Your task to perform on an android device: check out phone information Image 0: 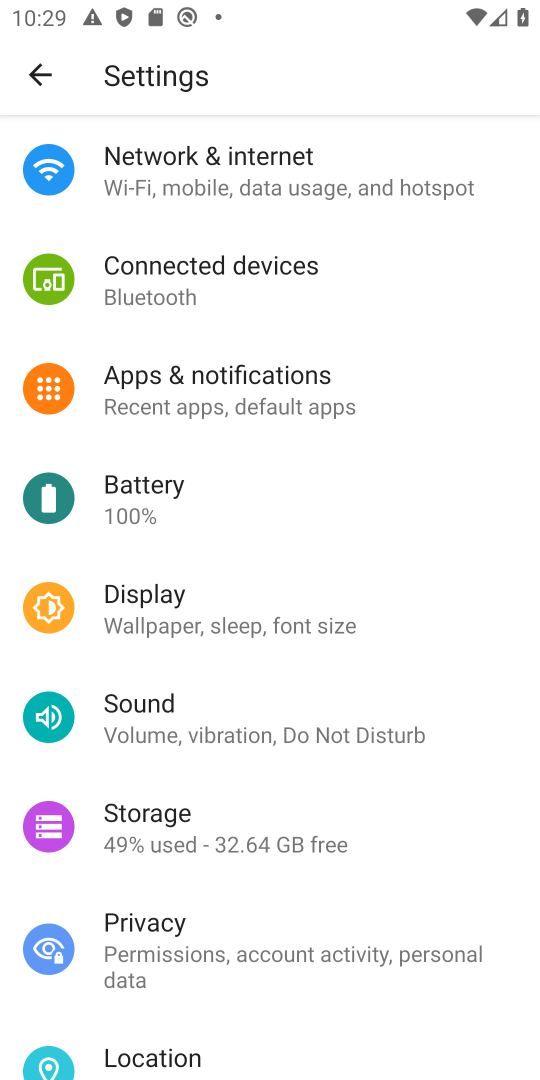
Step 0: drag from (278, 909) to (366, 411)
Your task to perform on an android device: check out phone information Image 1: 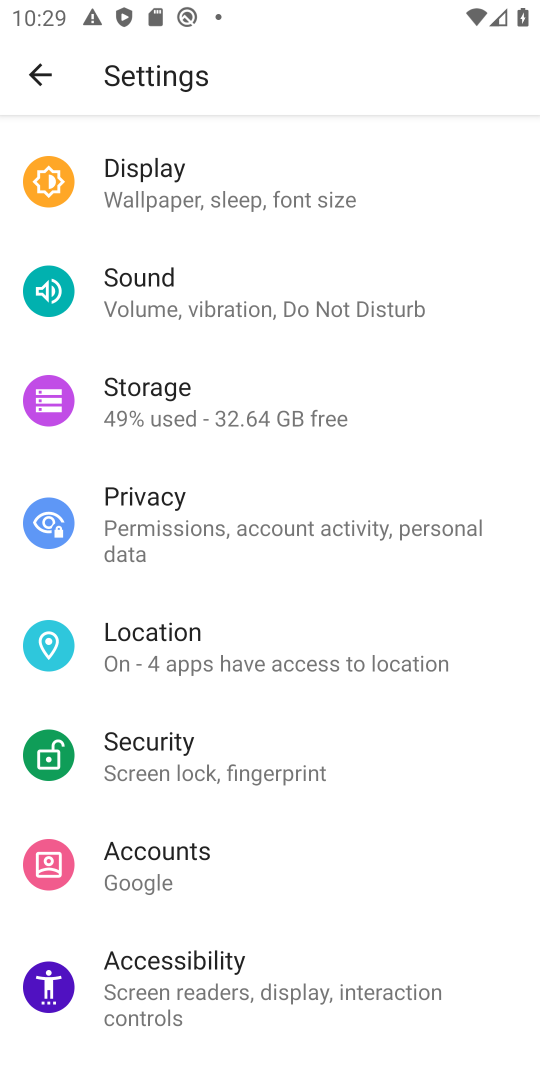
Step 1: drag from (355, 243) to (374, 842)
Your task to perform on an android device: check out phone information Image 2: 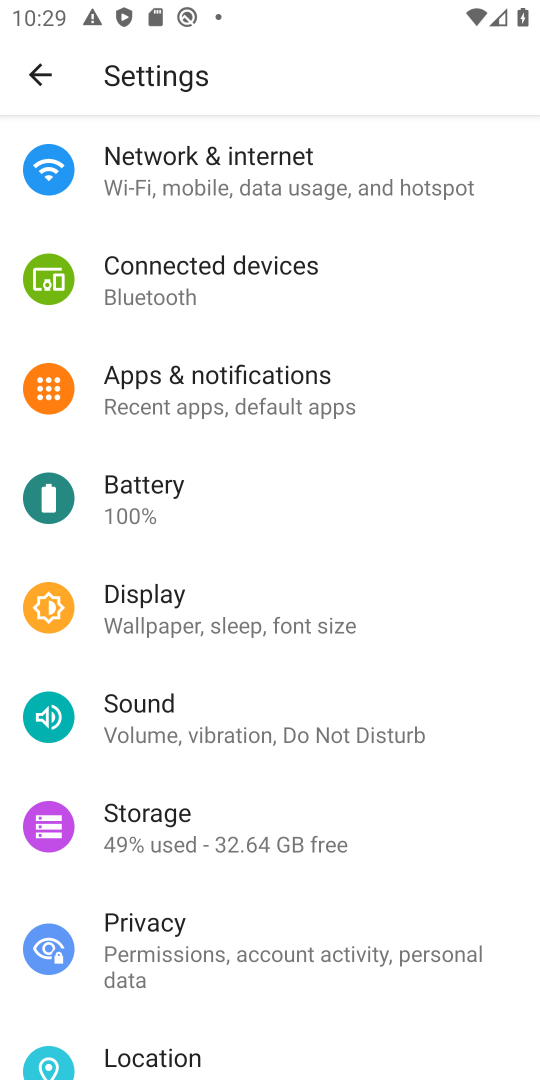
Step 2: press home button
Your task to perform on an android device: check out phone information Image 3: 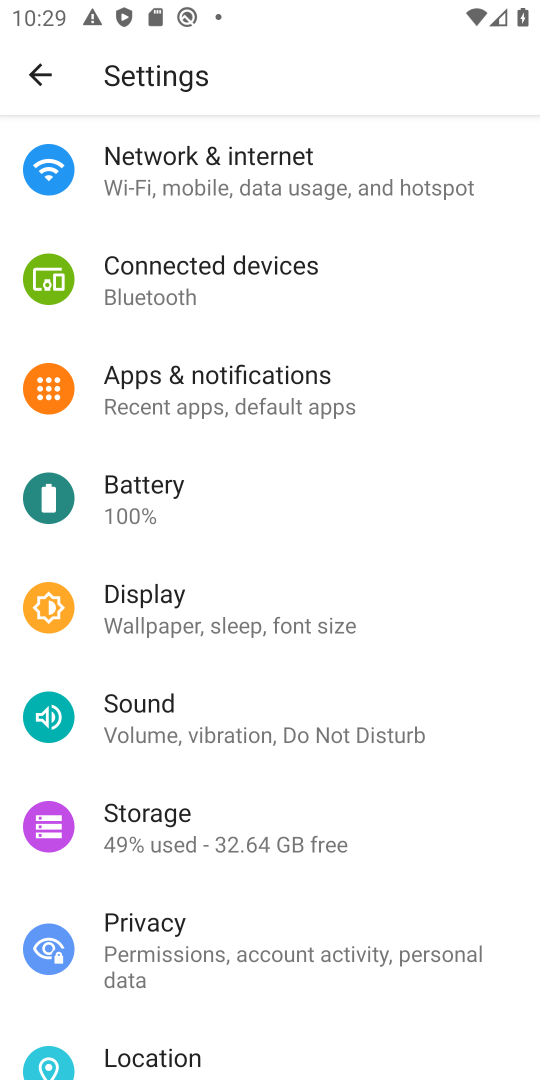
Step 3: press home button
Your task to perform on an android device: check out phone information Image 4: 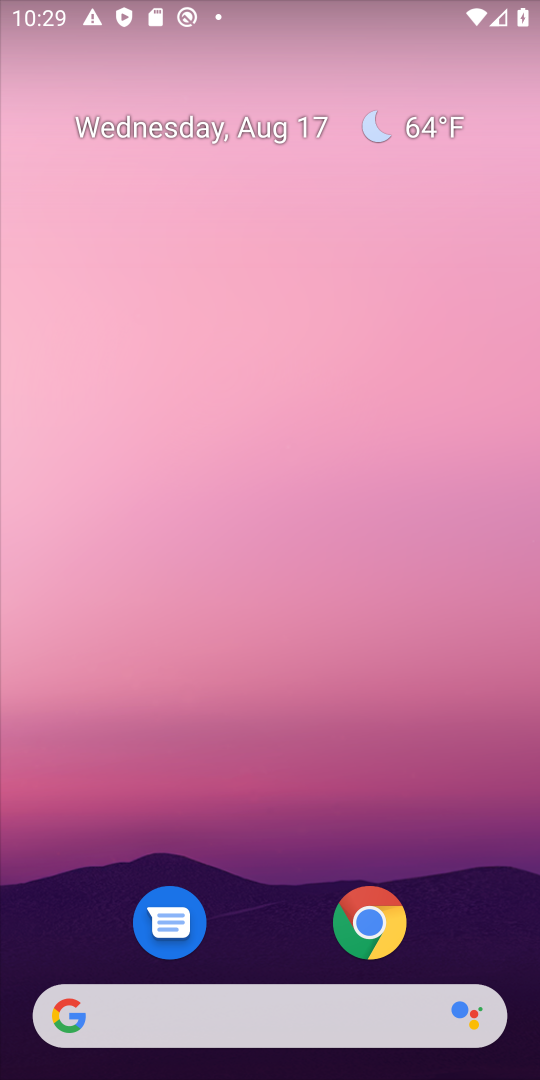
Step 4: drag from (269, 875) to (305, 103)
Your task to perform on an android device: check out phone information Image 5: 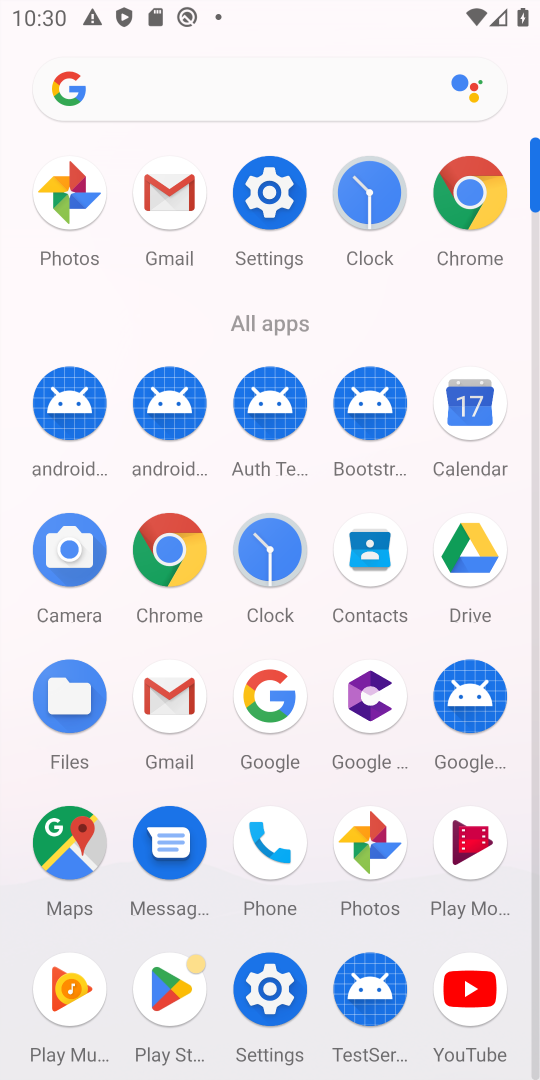
Step 5: click (279, 845)
Your task to perform on an android device: check out phone information Image 6: 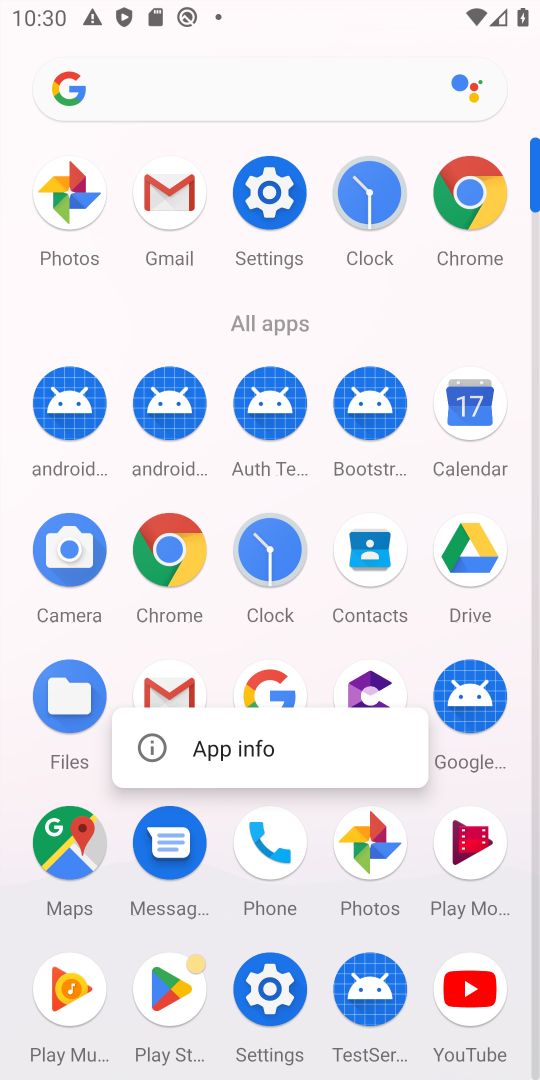
Step 6: click (315, 744)
Your task to perform on an android device: check out phone information Image 7: 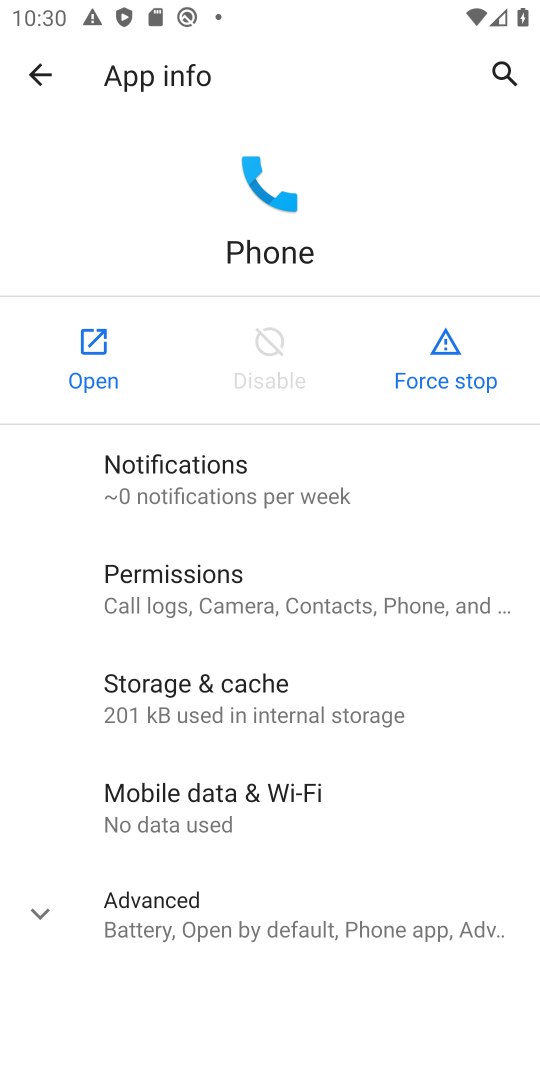
Step 7: task complete